Your task to perform on an android device: clear history in the chrome app Image 0: 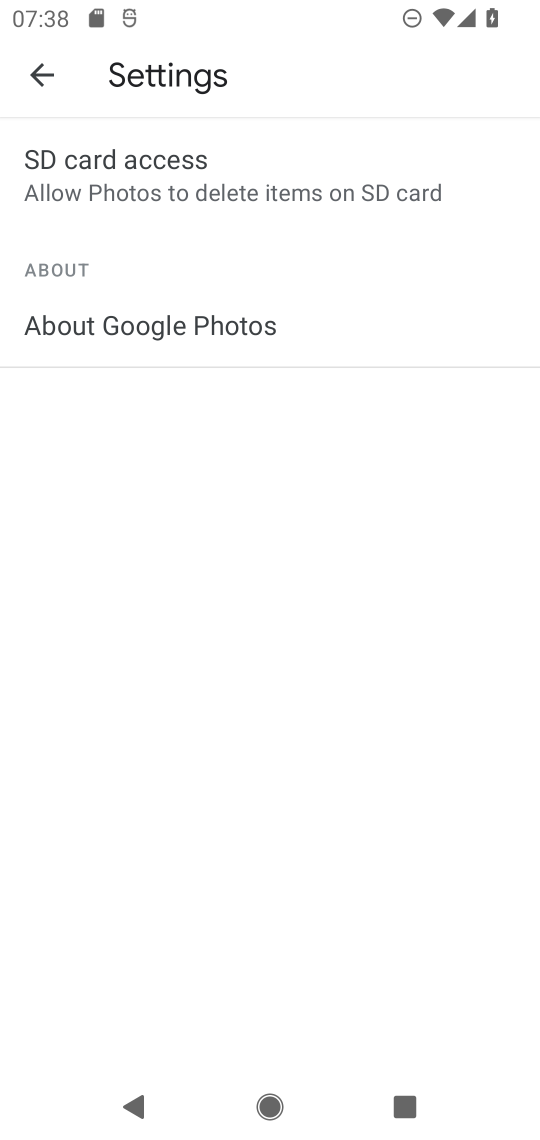
Step 0: press home button
Your task to perform on an android device: clear history in the chrome app Image 1: 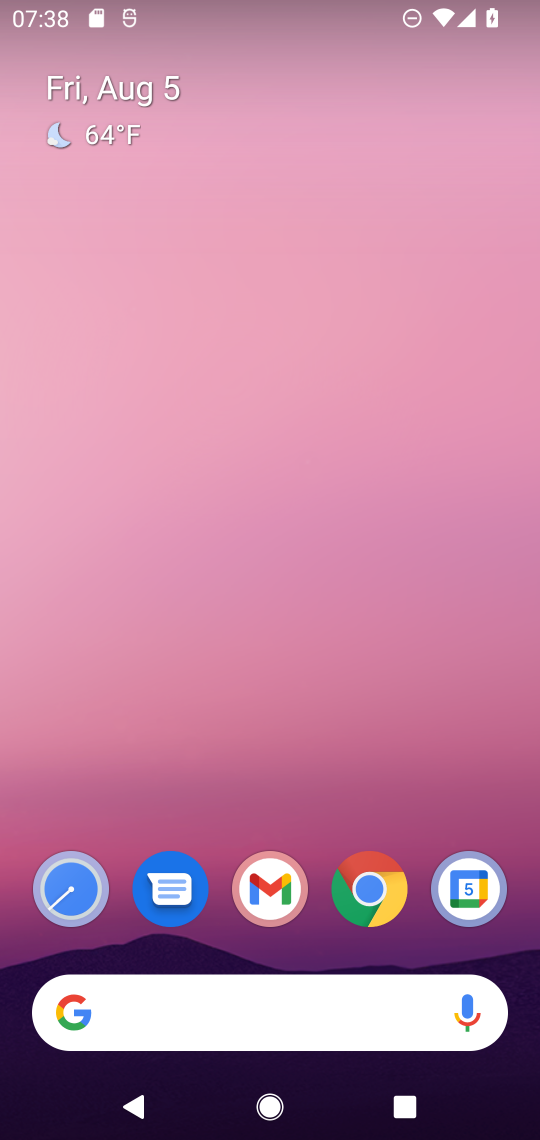
Step 1: click (358, 908)
Your task to perform on an android device: clear history in the chrome app Image 2: 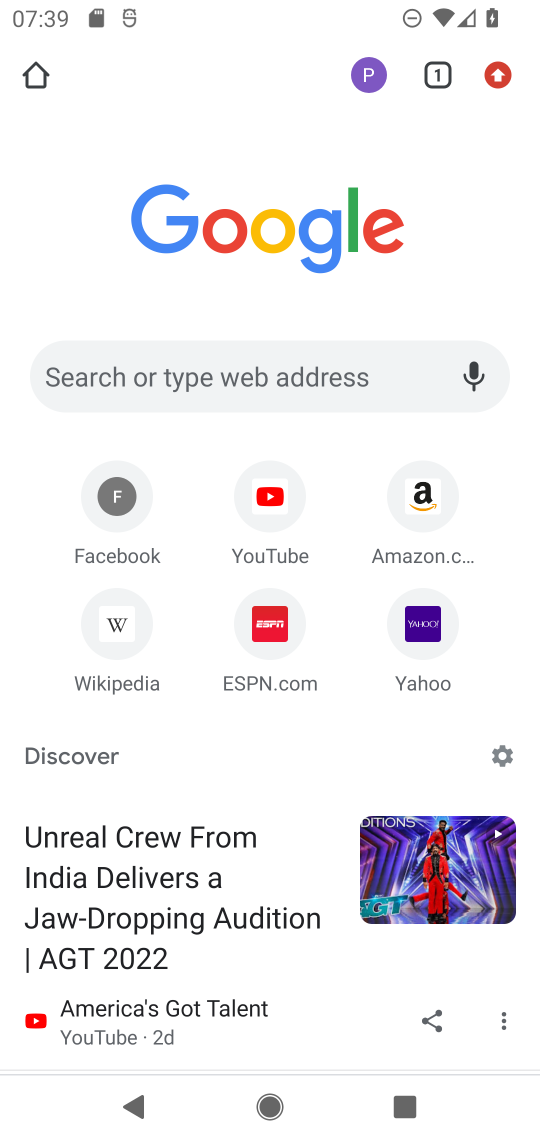
Step 2: click (490, 84)
Your task to perform on an android device: clear history in the chrome app Image 3: 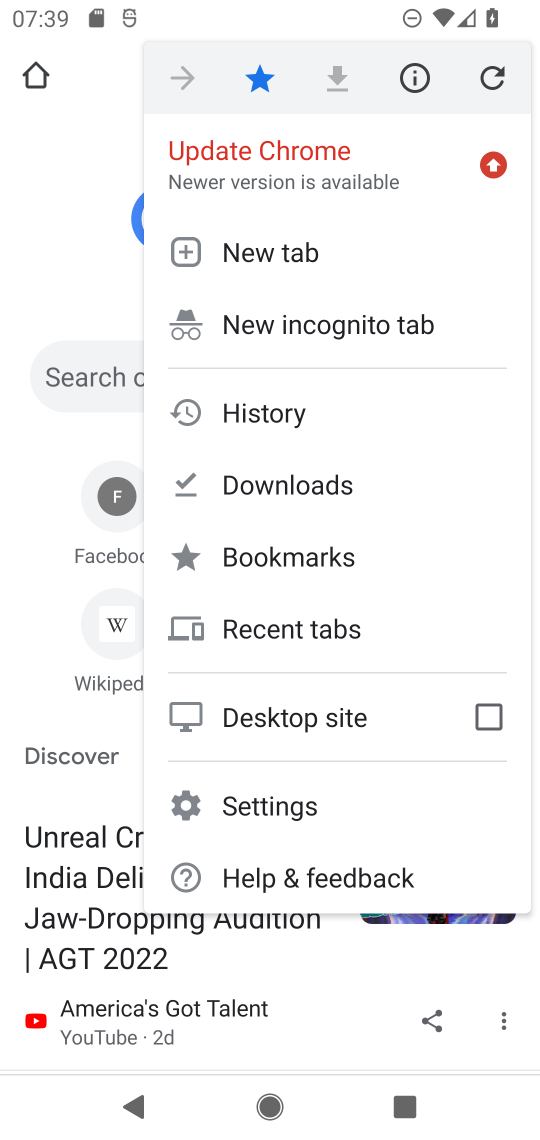
Step 3: click (279, 406)
Your task to perform on an android device: clear history in the chrome app Image 4: 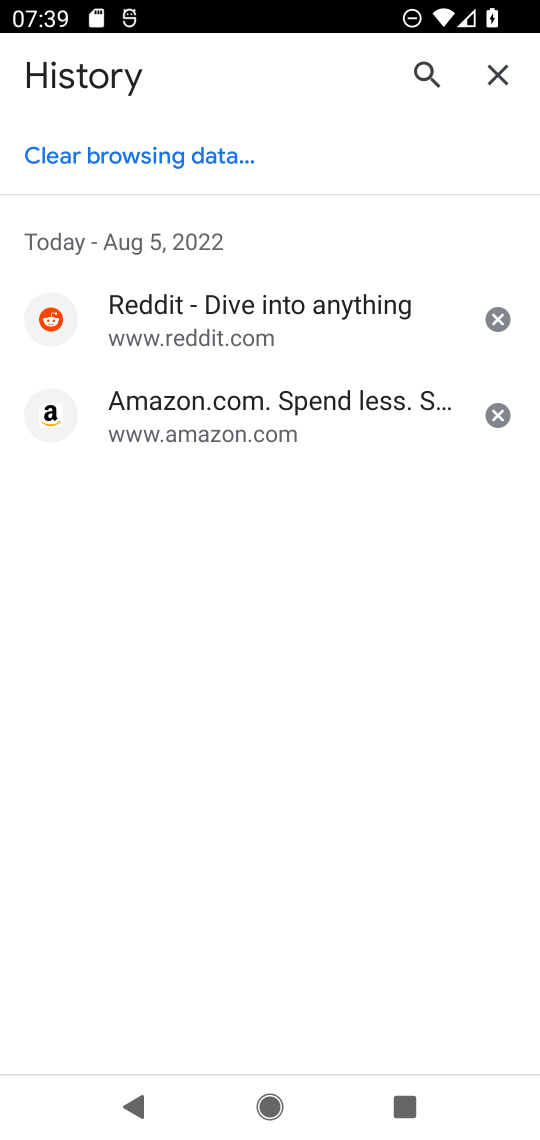
Step 4: click (139, 167)
Your task to perform on an android device: clear history in the chrome app Image 5: 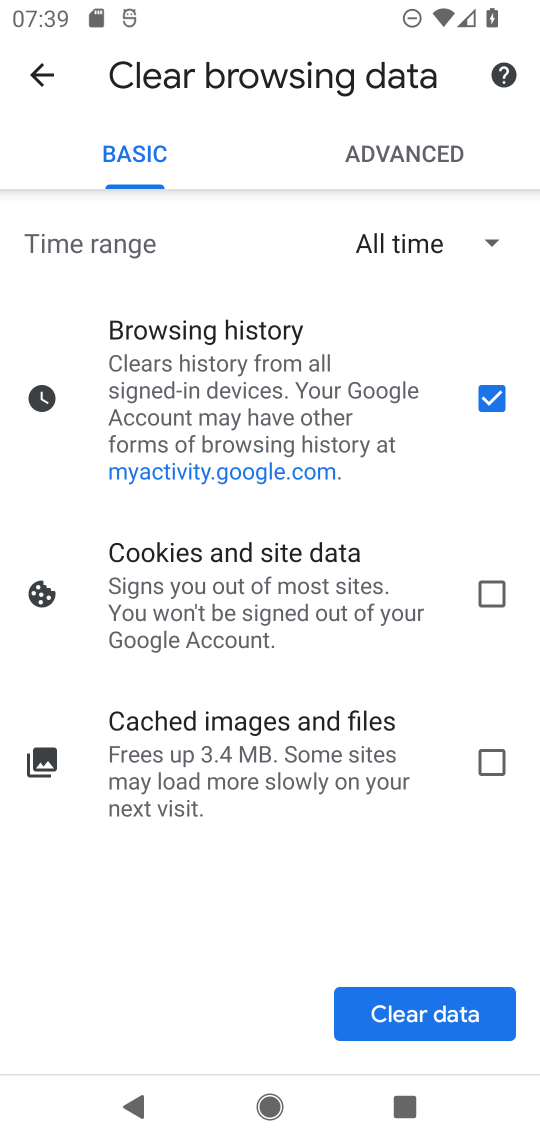
Step 5: click (496, 770)
Your task to perform on an android device: clear history in the chrome app Image 6: 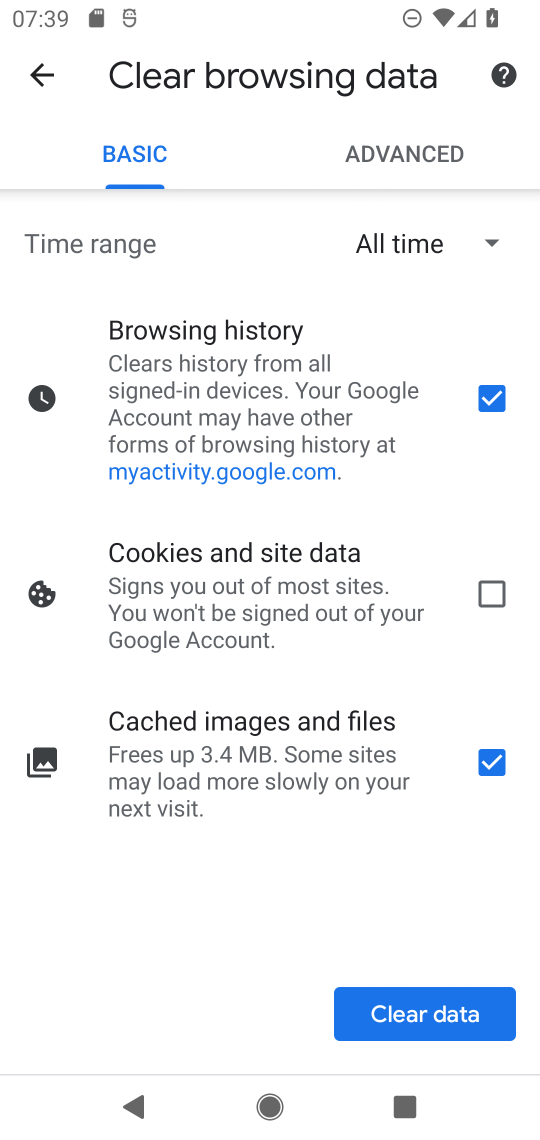
Step 6: click (490, 596)
Your task to perform on an android device: clear history in the chrome app Image 7: 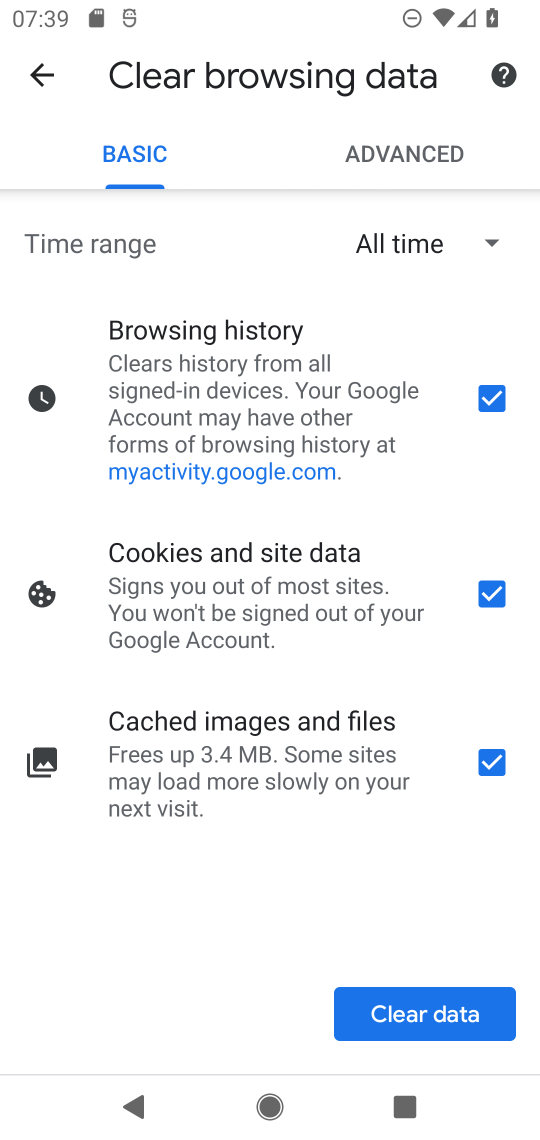
Step 7: click (416, 1023)
Your task to perform on an android device: clear history in the chrome app Image 8: 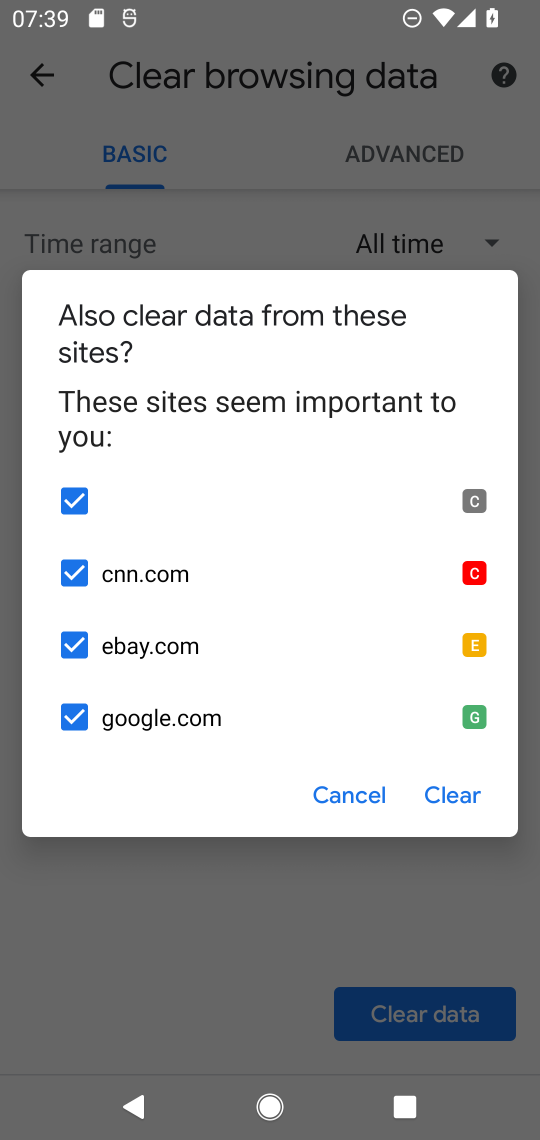
Step 8: click (453, 792)
Your task to perform on an android device: clear history in the chrome app Image 9: 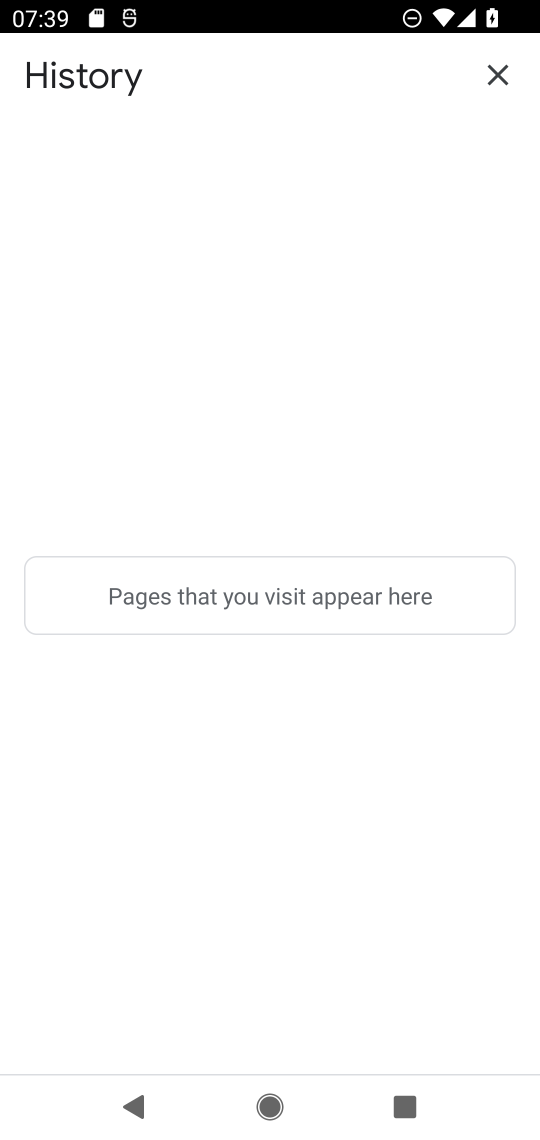
Step 9: task complete